Your task to perform on an android device: Turn off the flashlight Image 0: 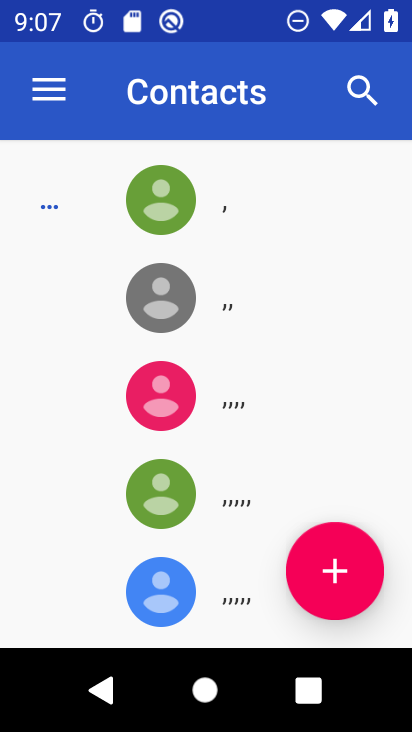
Step 0: press home button
Your task to perform on an android device: Turn off the flashlight Image 1: 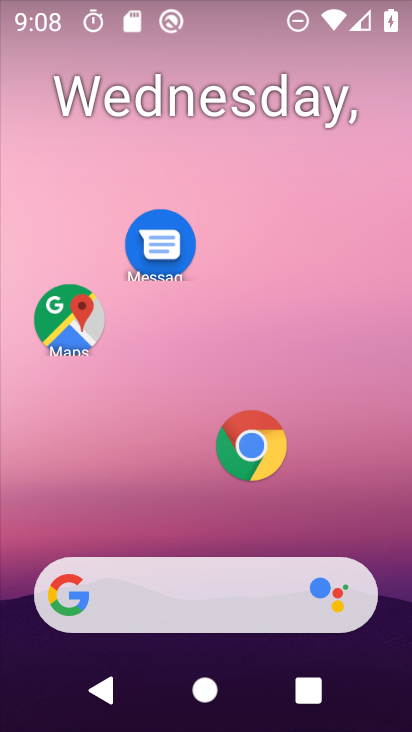
Step 1: drag from (200, 519) to (219, 2)
Your task to perform on an android device: Turn off the flashlight Image 2: 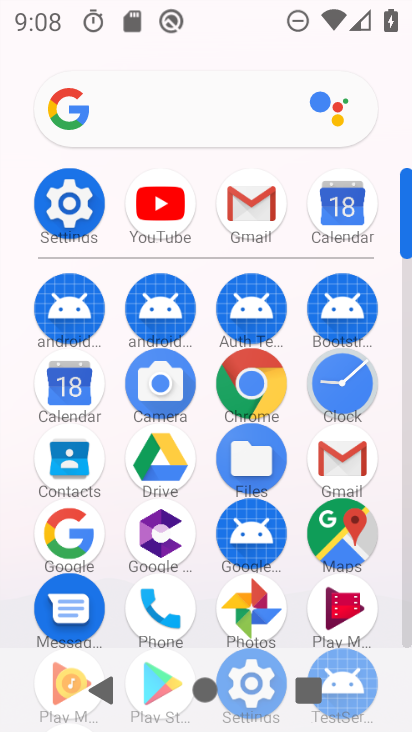
Step 2: click (61, 195)
Your task to perform on an android device: Turn off the flashlight Image 3: 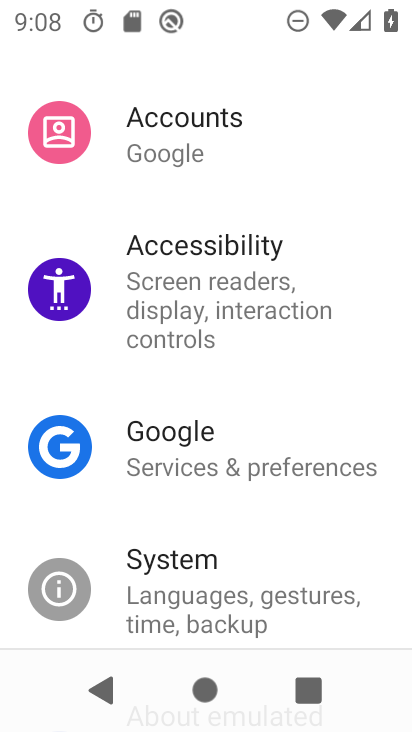
Step 3: drag from (183, 136) to (211, 465)
Your task to perform on an android device: Turn off the flashlight Image 4: 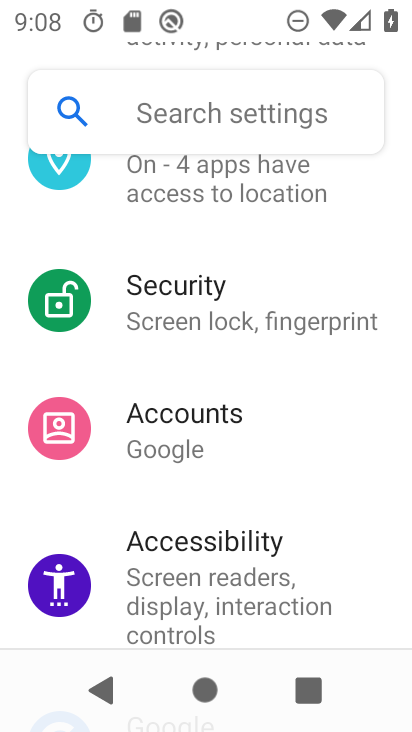
Step 4: click (176, 110)
Your task to perform on an android device: Turn off the flashlight Image 5: 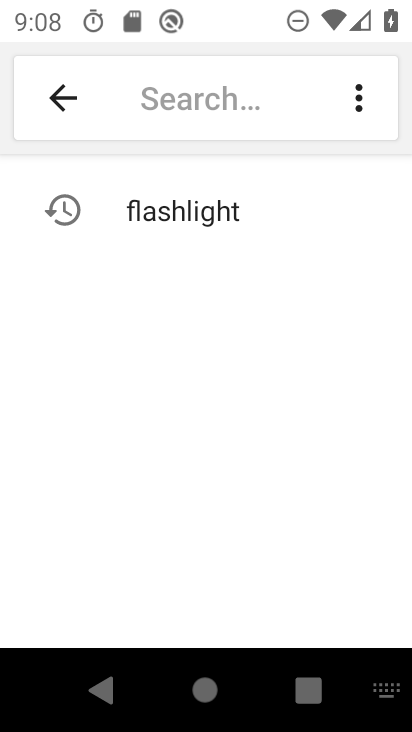
Step 5: click (211, 216)
Your task to perform on an android device: Turn off the flashlight Image 6: 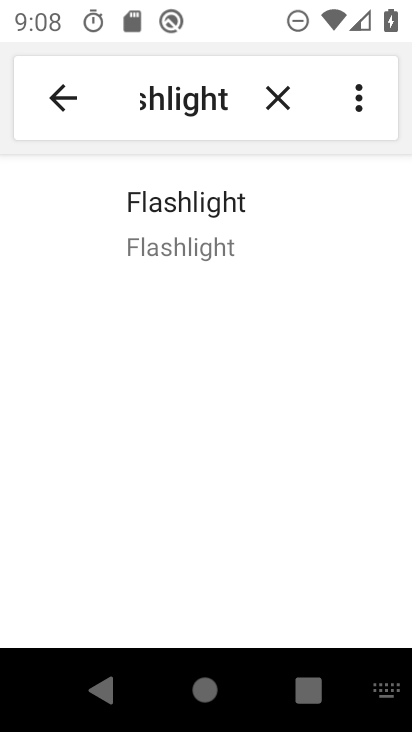
Step 6: task complete